Your task to perform on an android device: Open Wikipedia Image 0: 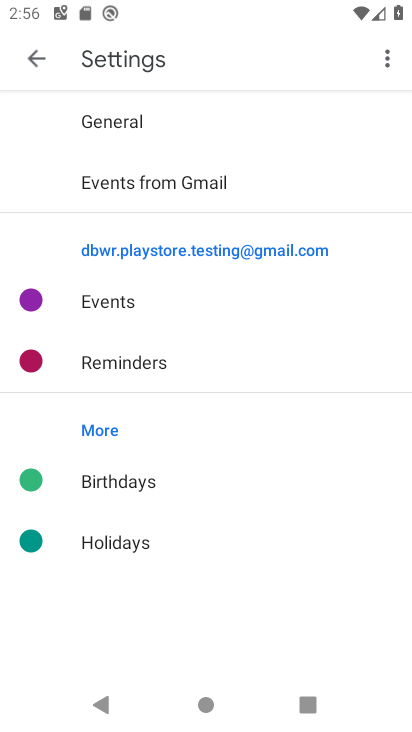
Step 0: click (38, 48)
Your task to perform on an android device: Open Wikipedia Image 1: 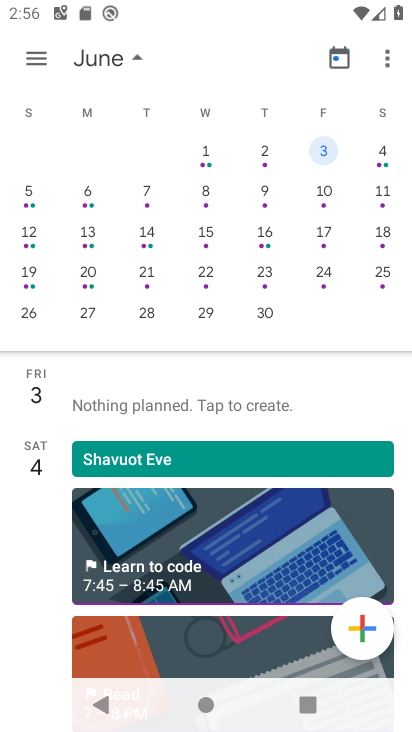
Step 1: click (41, 49)
Your task to perform on an android device: Open Wikipedia Image 2: 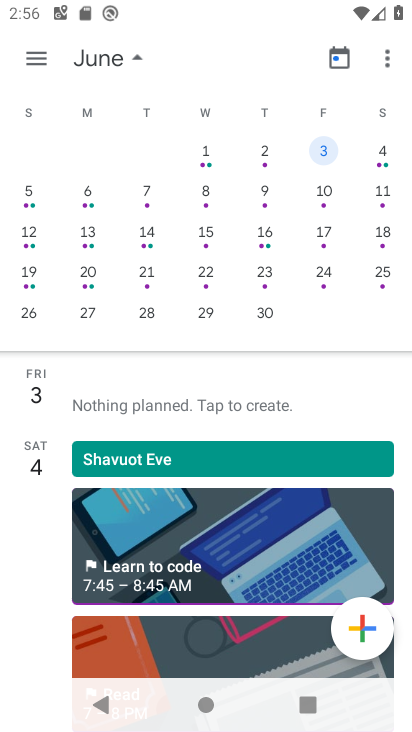
Step 2: click (43, 48)
Your task to perform on an android device: Open Wikipedia Image 3: 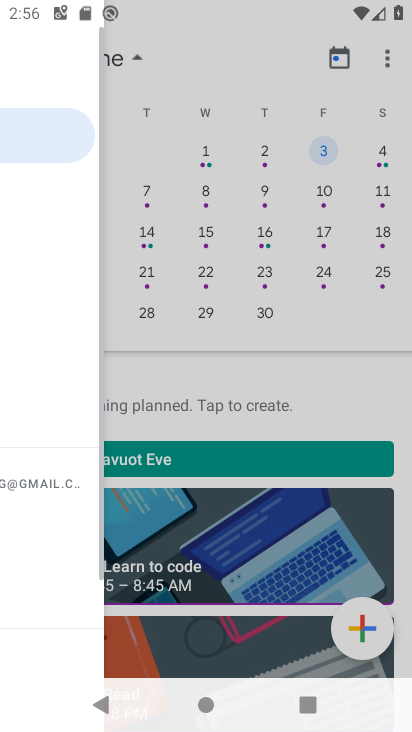
Step 3: click (43, 48)
Your task to perform on an android device: Open Wikipedia Image 4: 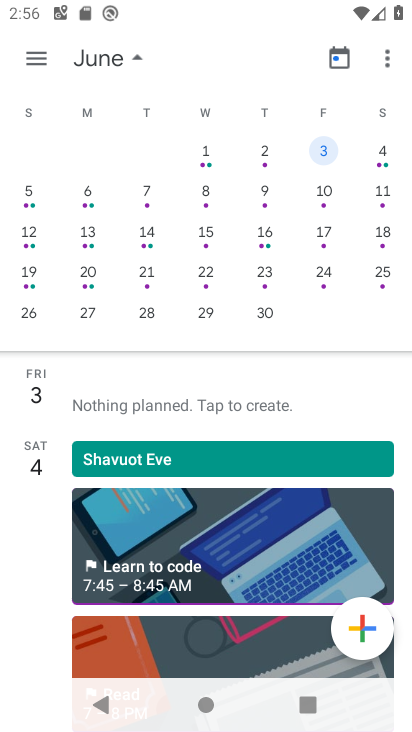
Step 4: press back button
Your task to perform on an android device: Open Wikipedia Image 5: 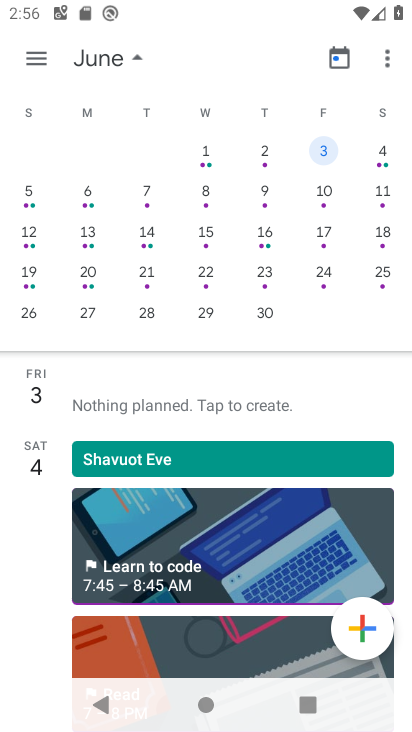
Step 5: press back button
Your task to perform on an android device: Open Wikipedia Image 6: 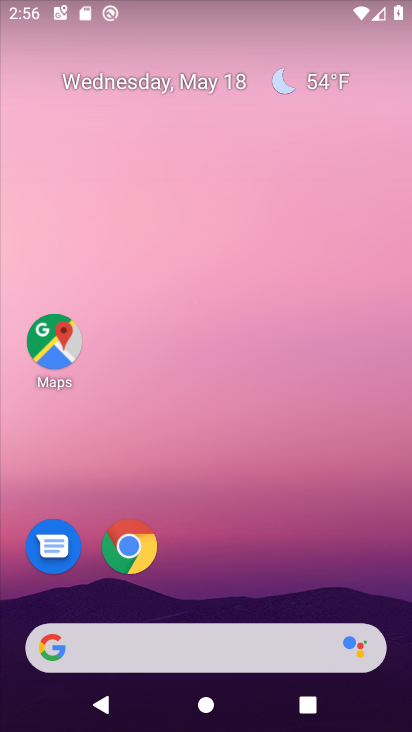
Step 6: drag from (217, 496) to (89, 11)
Your task to perform on an android device: Open Wikipedia Image 7: 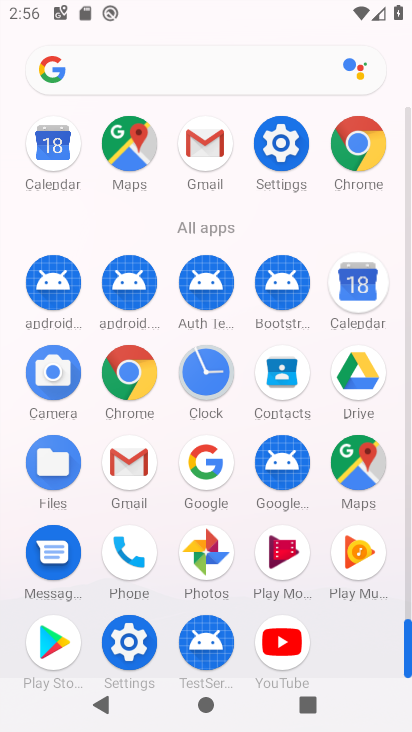
Step 7: click (350, 127)
Your task to perform on an android device: Open Wikipedia Image 8: 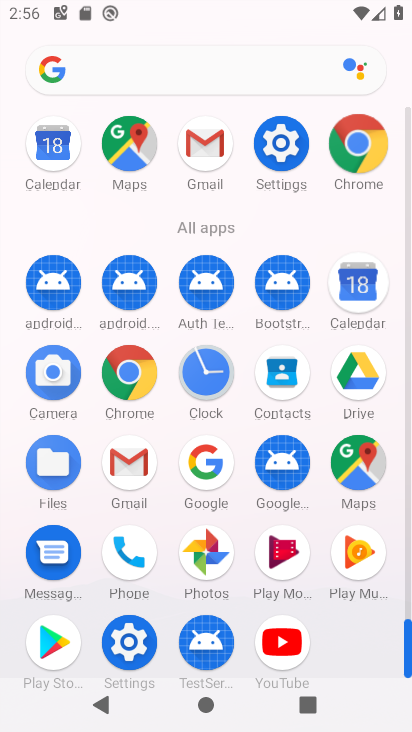
Step 8: click (355, 142)
Your task to perform on an android device: Open Wikipedia Image 9: 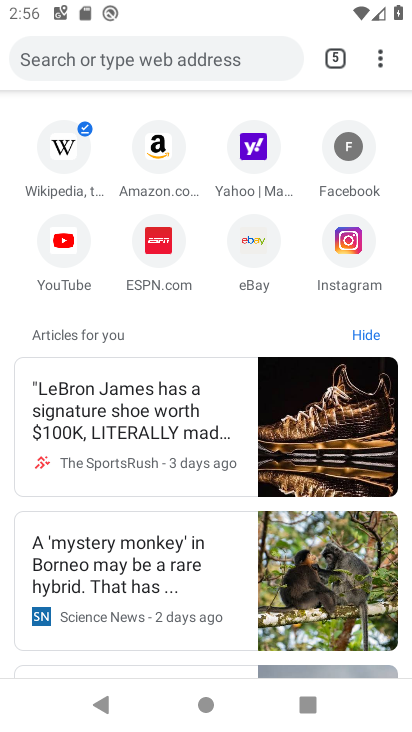
Step 9: click (80, 136)
Your task to perform on an android device: Open Wikipedia Image 10: 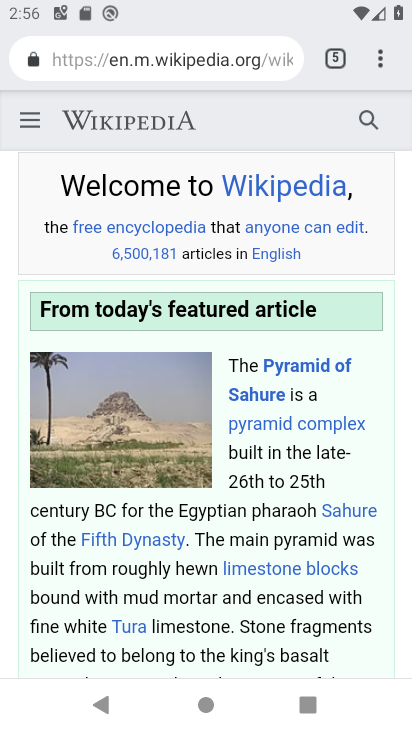
Step 10: task complete